Your task to perform on an android device: turn pop-ups on in chrome Image 0: 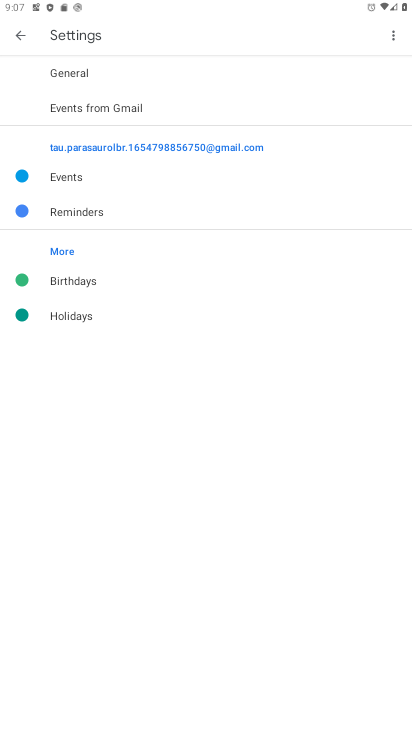
Step 0: press home button
Your task to perform on an android device: turn pop-ups on in chrome Image 1: 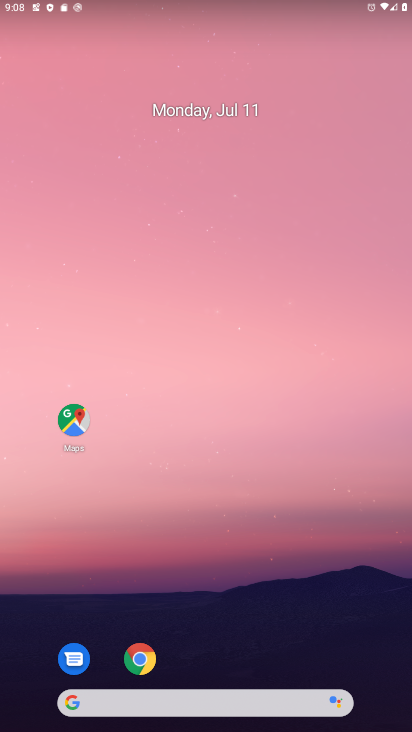
Step 1: click (141, 666)
Your task to perform on an android device: turn pop-ups on in chrome Image 2: 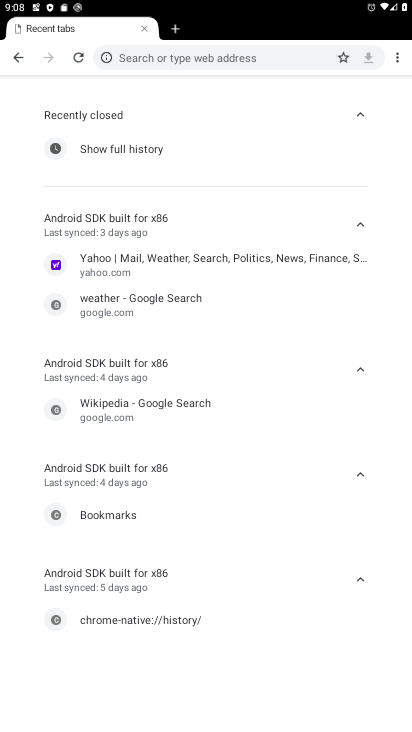
Step 2: click (394, 54)
Your task to perform on an android device: turn pop-ups on in chrome Image 3: 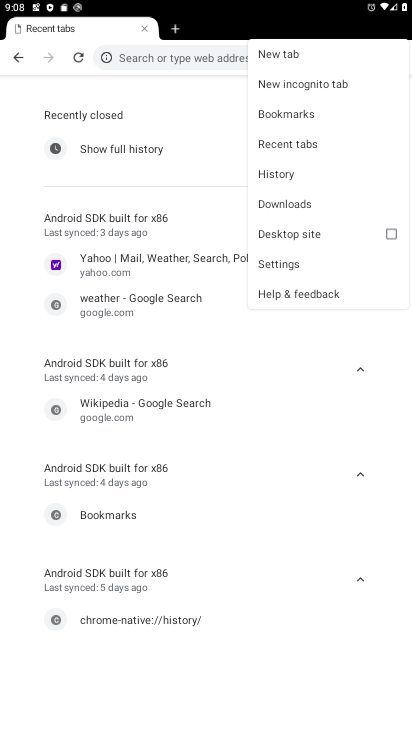
Step 3: click (284, 261)
Your task to perform on an android device: turn pop-ups on in chrome Image 4: 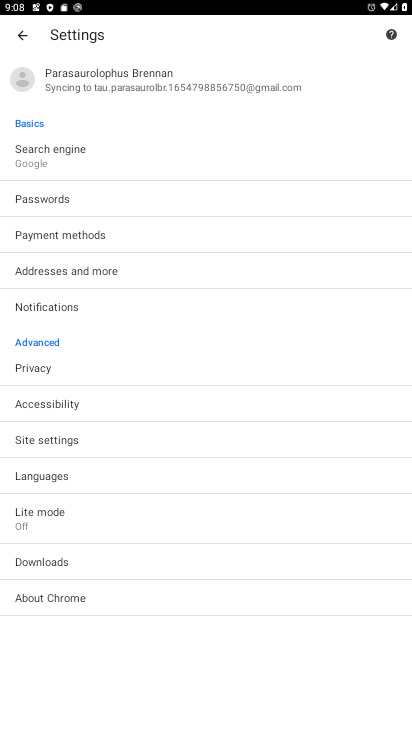
Step 4: click (51, 435)
Your task to perform on an android device: turn pop-ups on in chrome Image 5: 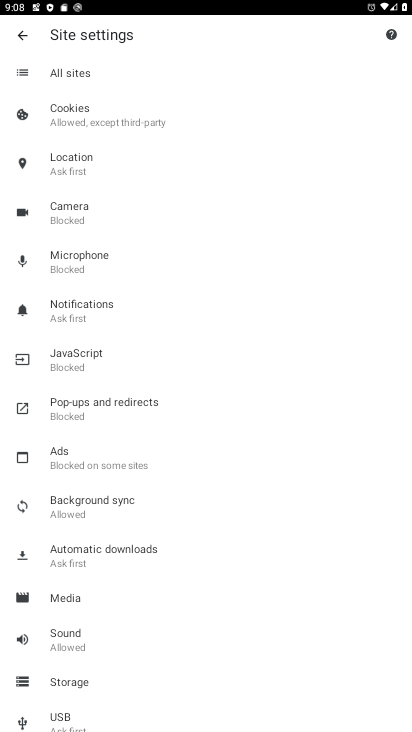
Step 5: click (81, 398)
Your task to perform on an android device: turn pop-ups on in chrome Image 6: 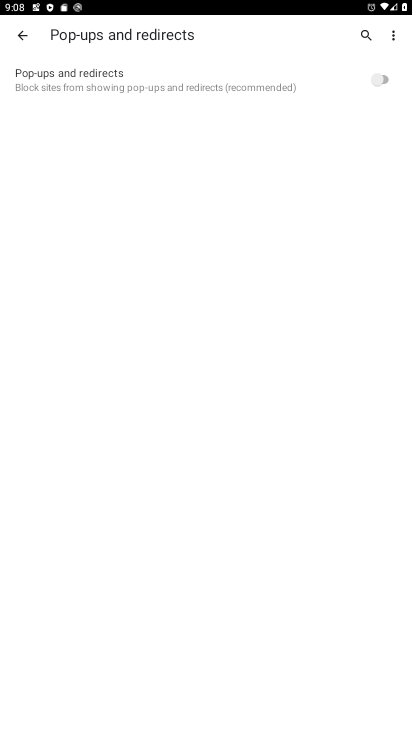
Step 6: click (373, 80)
Your task to perform on an android device: turn pop-ups on in chrome Image 7: 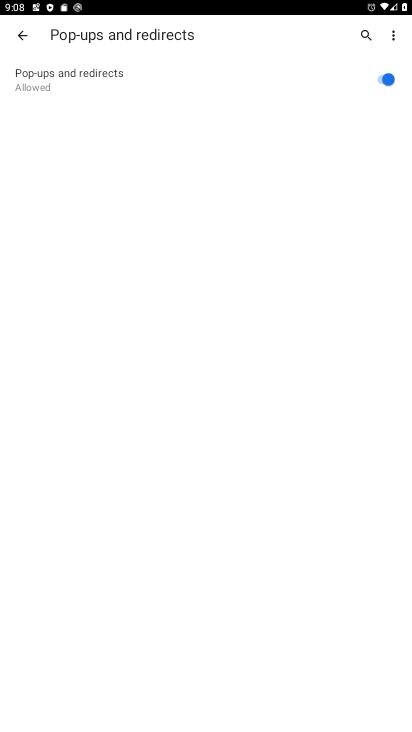
Step 7: task complete